Your task to perform on an android device: Do I have any events today? Image 0: 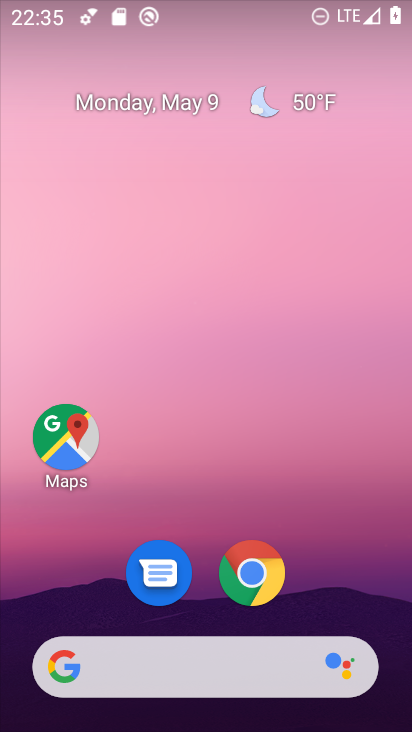
Step 0: drag from (318, 308) to (248, 65)
Your task to perform on an android device: Do I have any events today? Image 1: 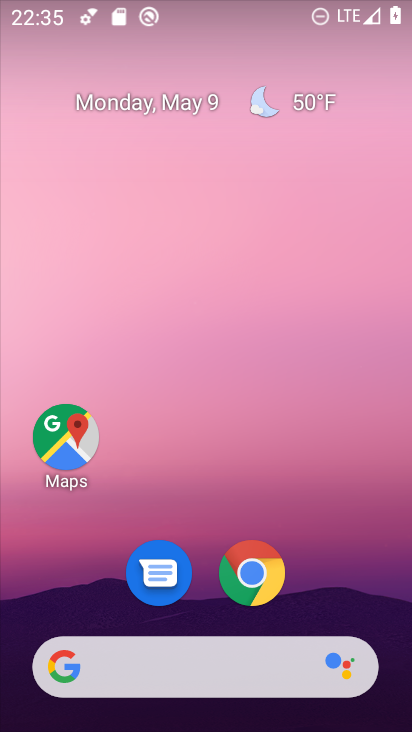
Step 1: drag from (352, 449) to (223, 11)
Your task to perform on an android device: Do I have any events today? Image 2: 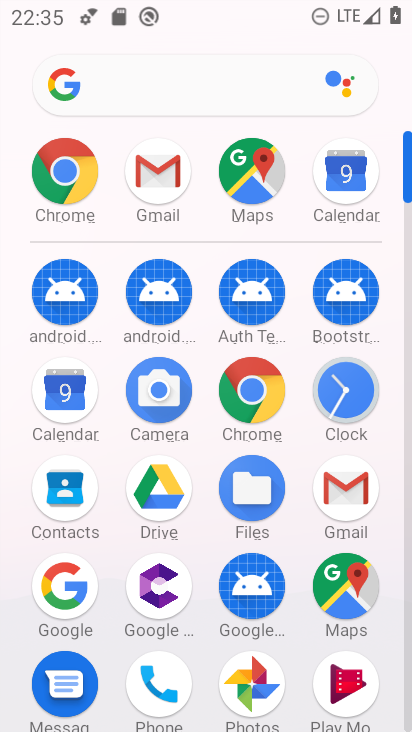
Step 2: click (58, 405)
Your task to perform on an android device: Do I have any events today? Image 3: 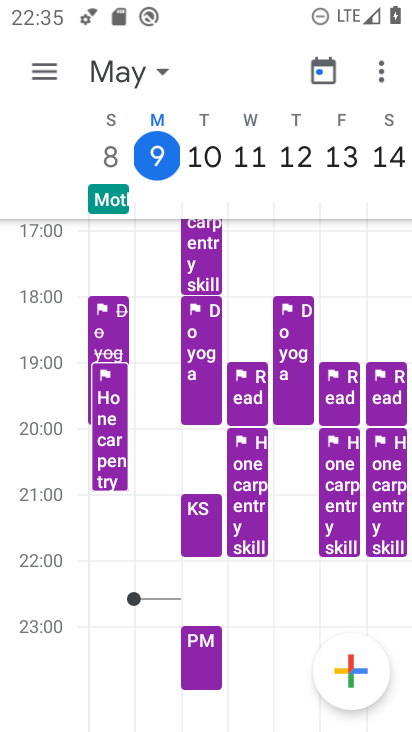
Step 3: click (45, 76)
Your task to perform on an android device: Do I have any events today? Image 4: 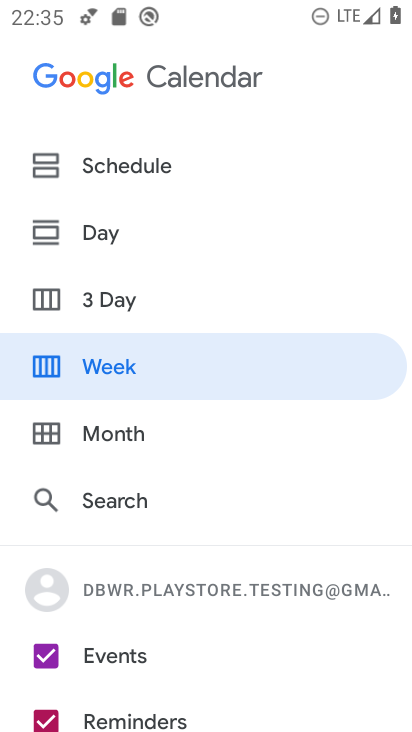
Step 4: click (103, 248)
Your task to perform on an android device: Do I have any events today? Image 5: 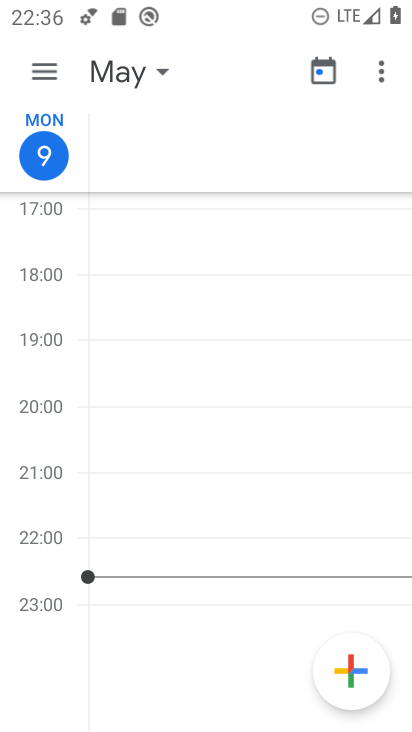
Step 5: drag from (254, 347) to (266, 306)
Your task to perform on an android device: Do I have any events today? Image 6: 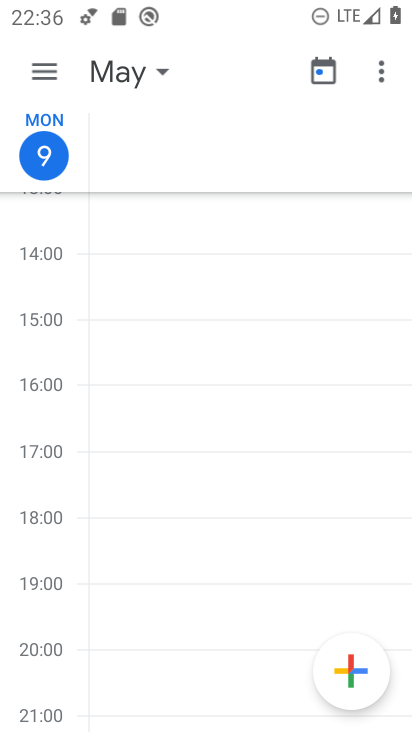
Step 6: click (253, 492)
Your task to perform on an android device: Do I have any events today? Image 7: 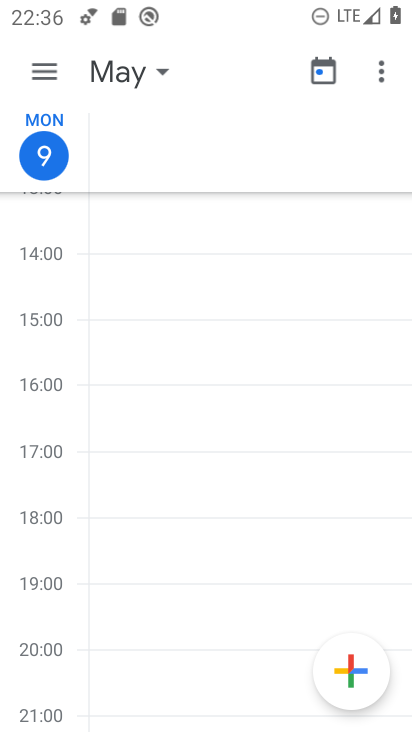
Step 7: task complete